Your task to perform on an android device: turn off notifications in google photos Image 0: 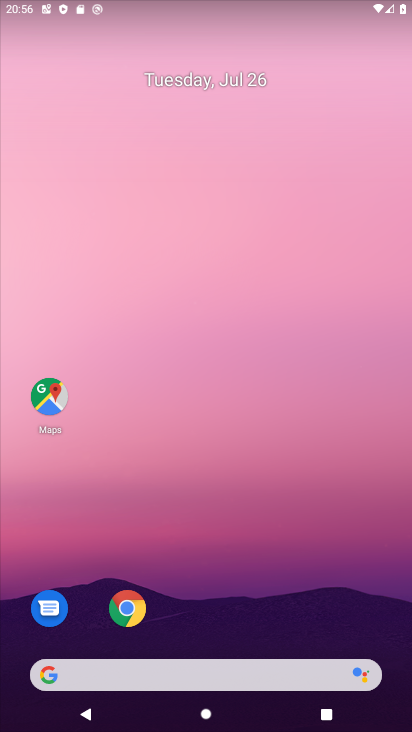
Step 0: drag from (20, 689) to (395, 1)
Your task to perform on an android device: turn off notifications in google photos Image 1: 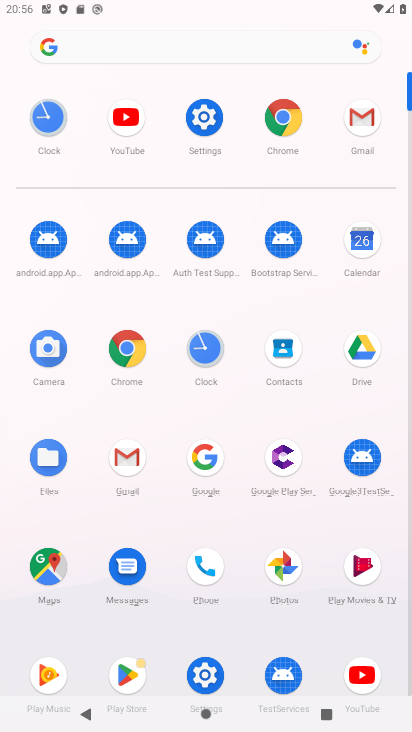
Step 1: click (281, 576)
Your task to perform on an android device: turn off notifications in google photos Image 2: 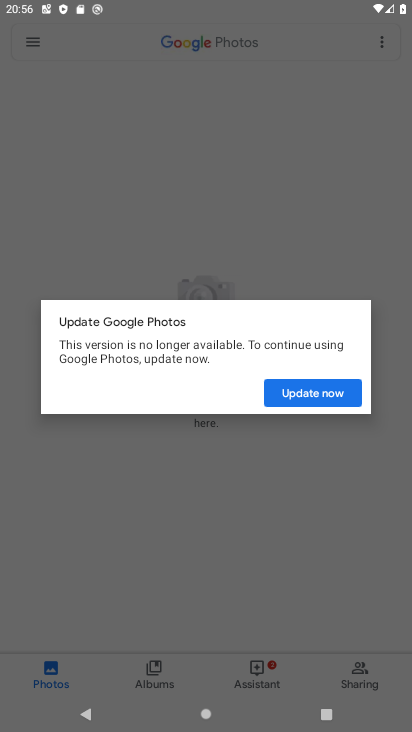
Step 2: click (306, 390)
Your task to perform on an android device: turn off notifications in google photos Image 3: 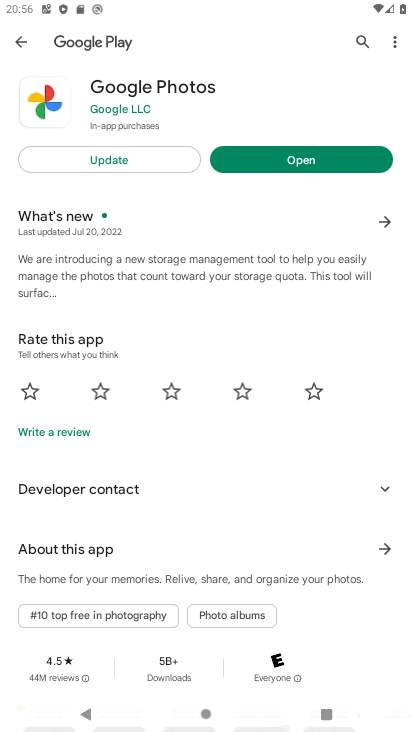
Step 3: click (281, 160)
Your task to perform on an android device: turn off notifications in google photos Image 4: 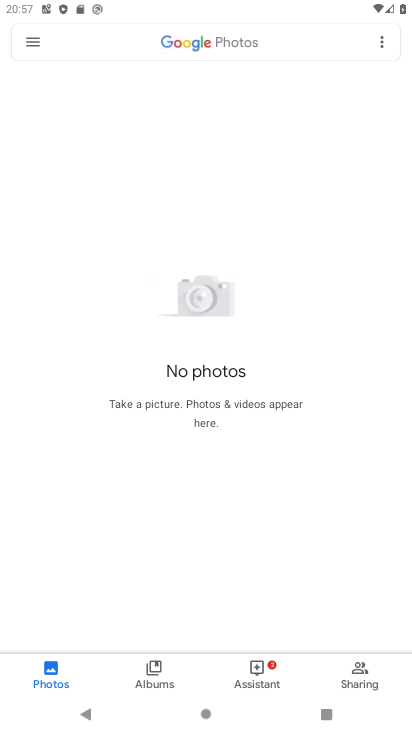
Step 4: click (39, 34)
Your task to perform on an android device: turn off notifications in google photos Image 5: 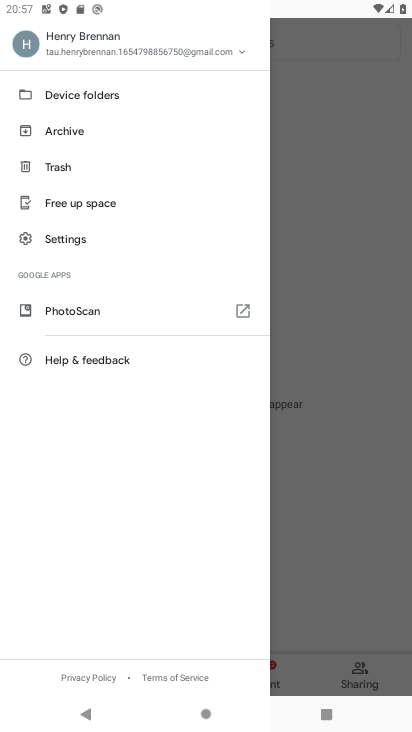
Step 5: click (76, 235)
Your task to perform on an android device: turn off notifications in google photos Image 6: 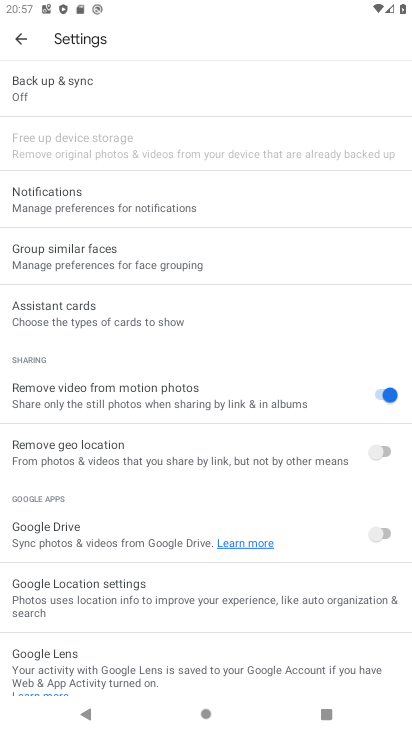
Step 6: click (73, 204)
Your task to perform on an android device: turn off notifications in google photos Image 7: 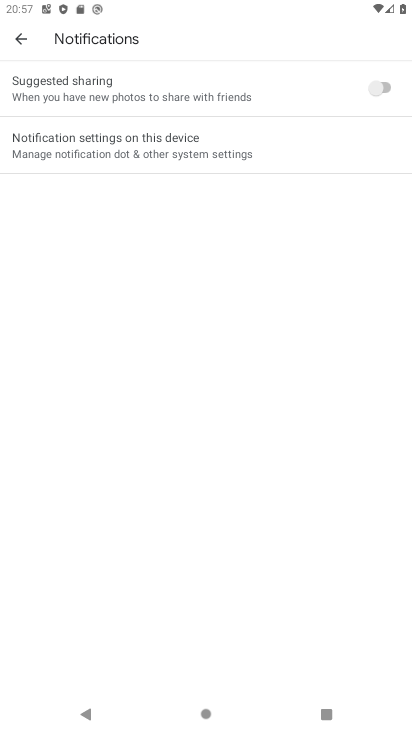
Step 7: click (105, 127)
Your task to perform on an android device: turn off notifications in google photos Image 8: 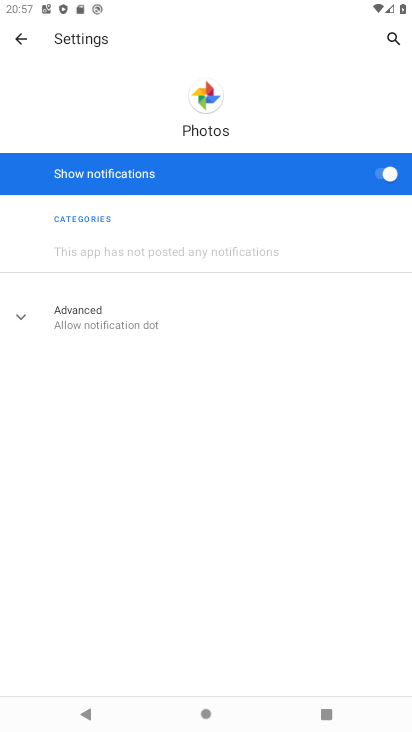
Step 8: click (389, 173)
Your task to perform on an android device: turn off notifications in google photos Image 9: 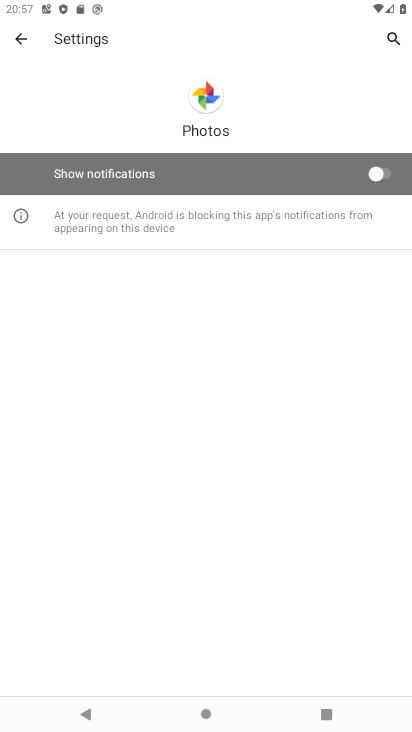
Step 9: task complete